Your task to perform on an android device: Is it going to rain today? Image 0: 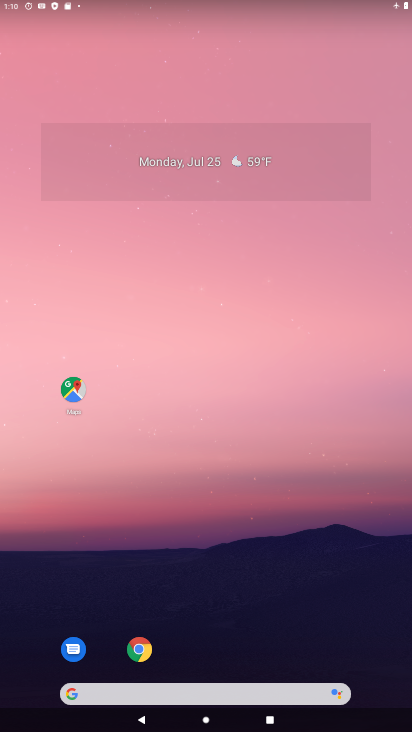
Step 0: drag from (175, 697) to (189, 194)
Your task to perform on an android device: Is it going to rain today? Image 1: 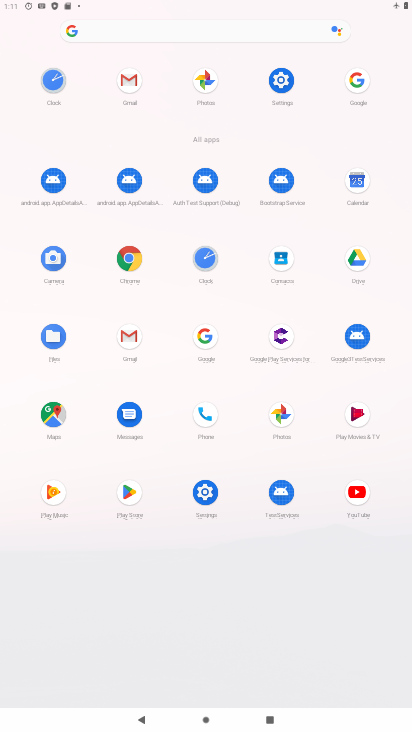
Step 1: click (207, 333)
Your task to perform on an android device: Is it going to rain today? Image 2: 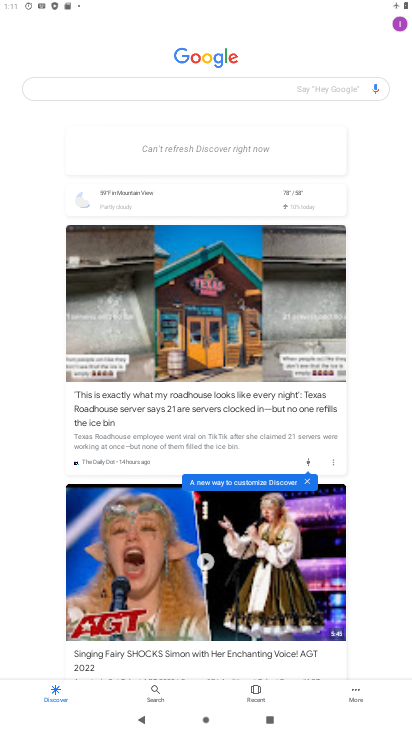
Step 2: click (166, 86)
Your task to perform on an android device: Is it going to rain today? Image 3: 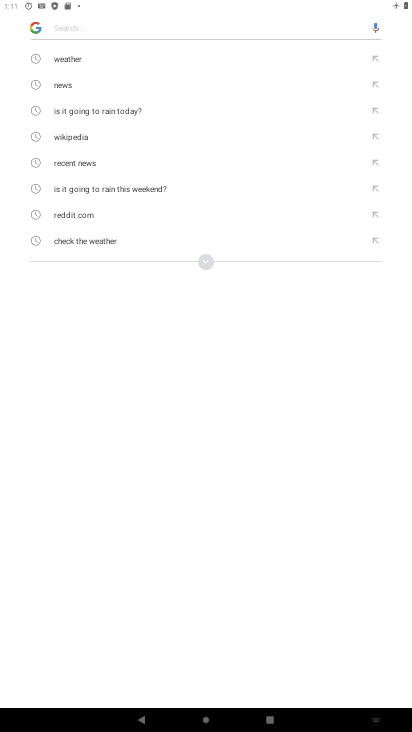
Step 3: type "Is it going to rain today?"
Your task to perform on an android device: Is it going to rain today? Image 4: 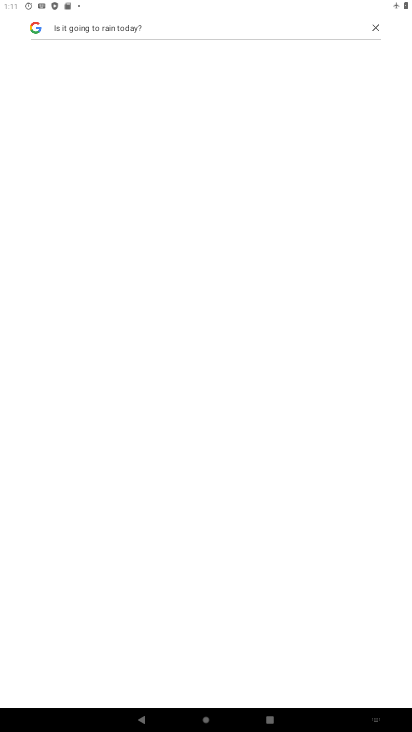
Step 4: task complete